Your task to perform on an android device: open app "Facebook Messenger" (install if not already installed) Image 0: 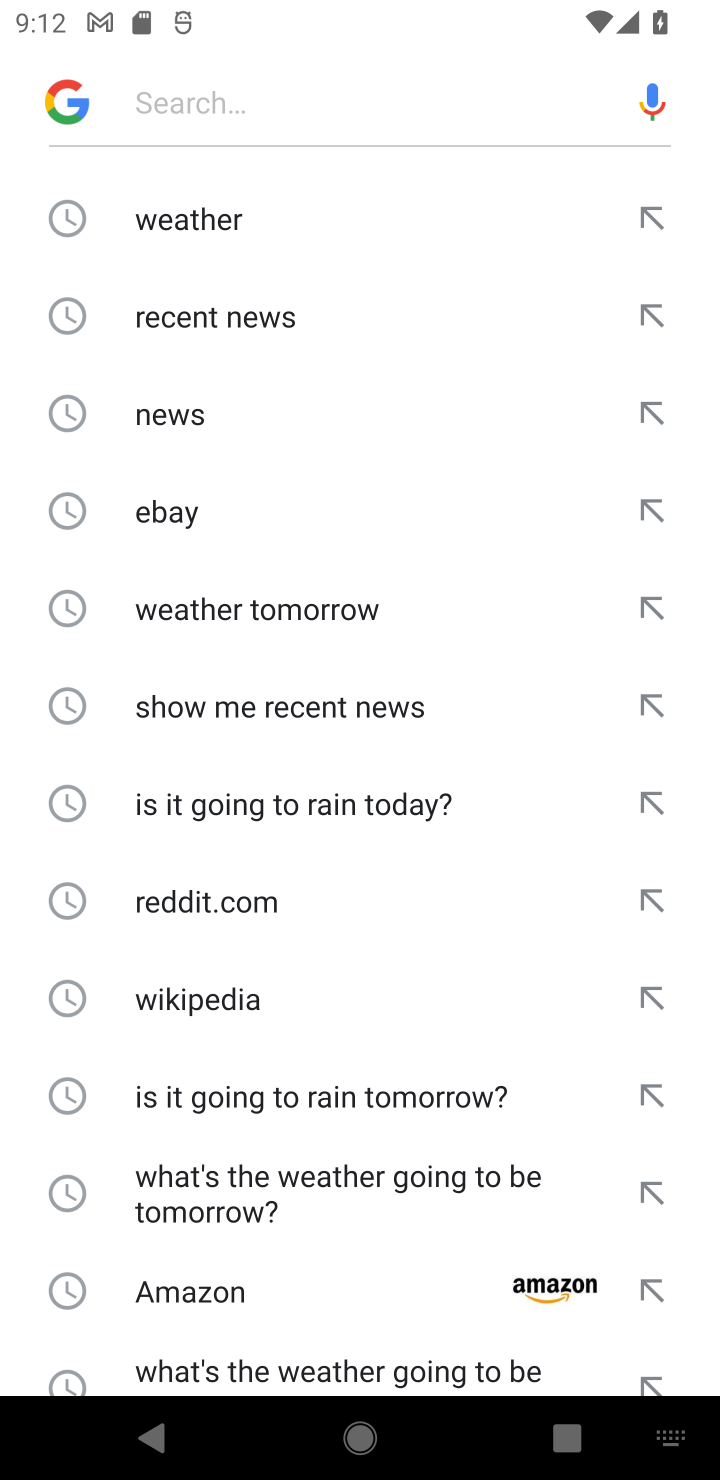
Step 0: press back button
Your task to perform on an android device: open app "Facebook Messenger" (install if not already installed) Image 1: 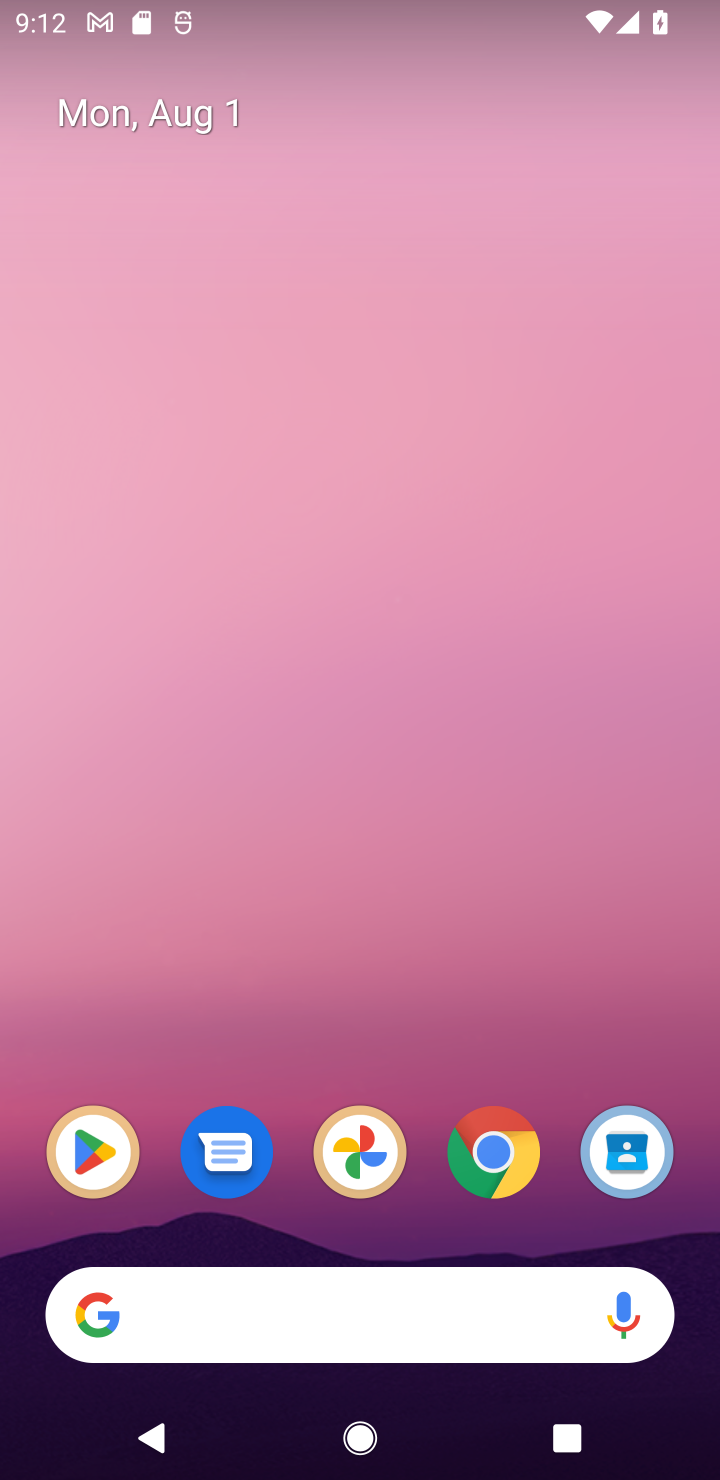
Step 1: drag from (300, 1219) to (359, 44)
Your task to perform on an android device: open app "Facebook Messenger" (install if not already installed) Image 2: 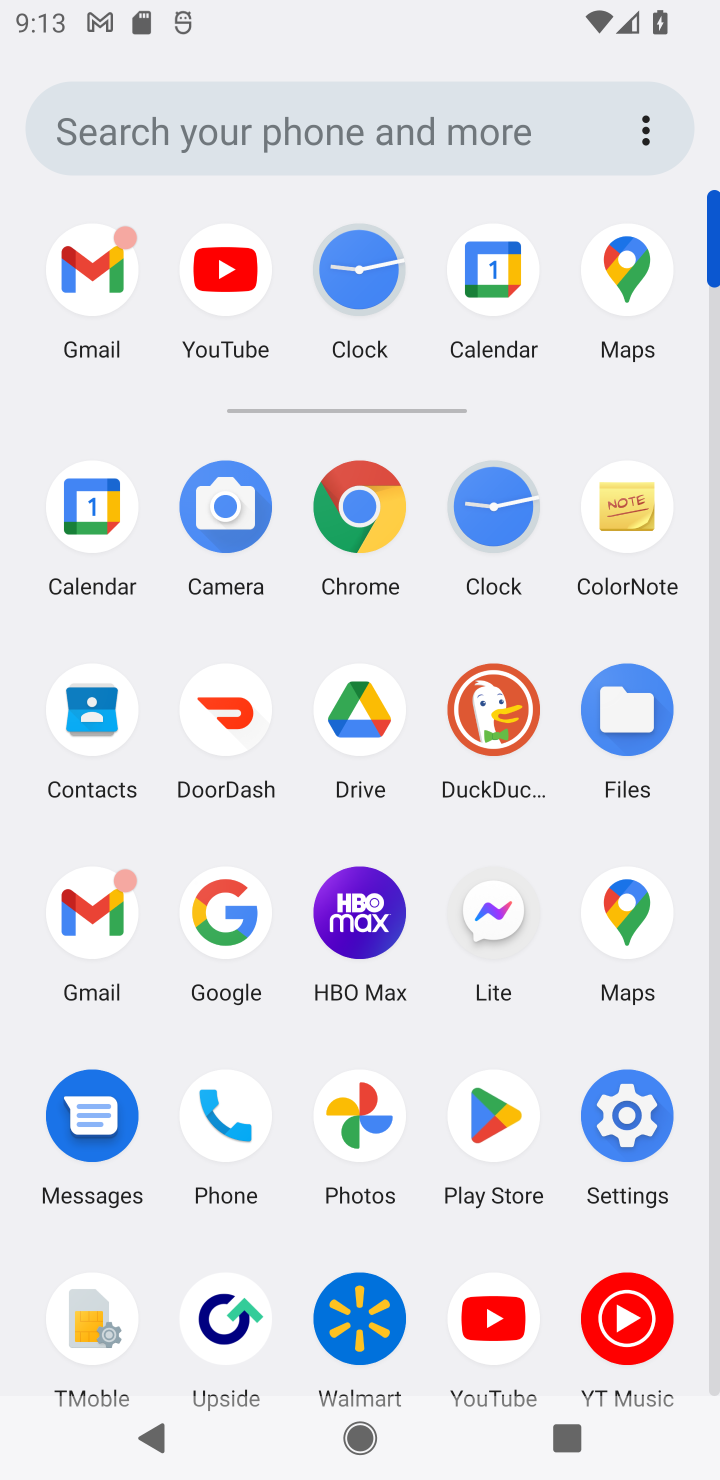
Step 2: click (492, 1116)
Your task to perform on an android device: open app "Facebook Messenger" (install if not already installed) Image 3: 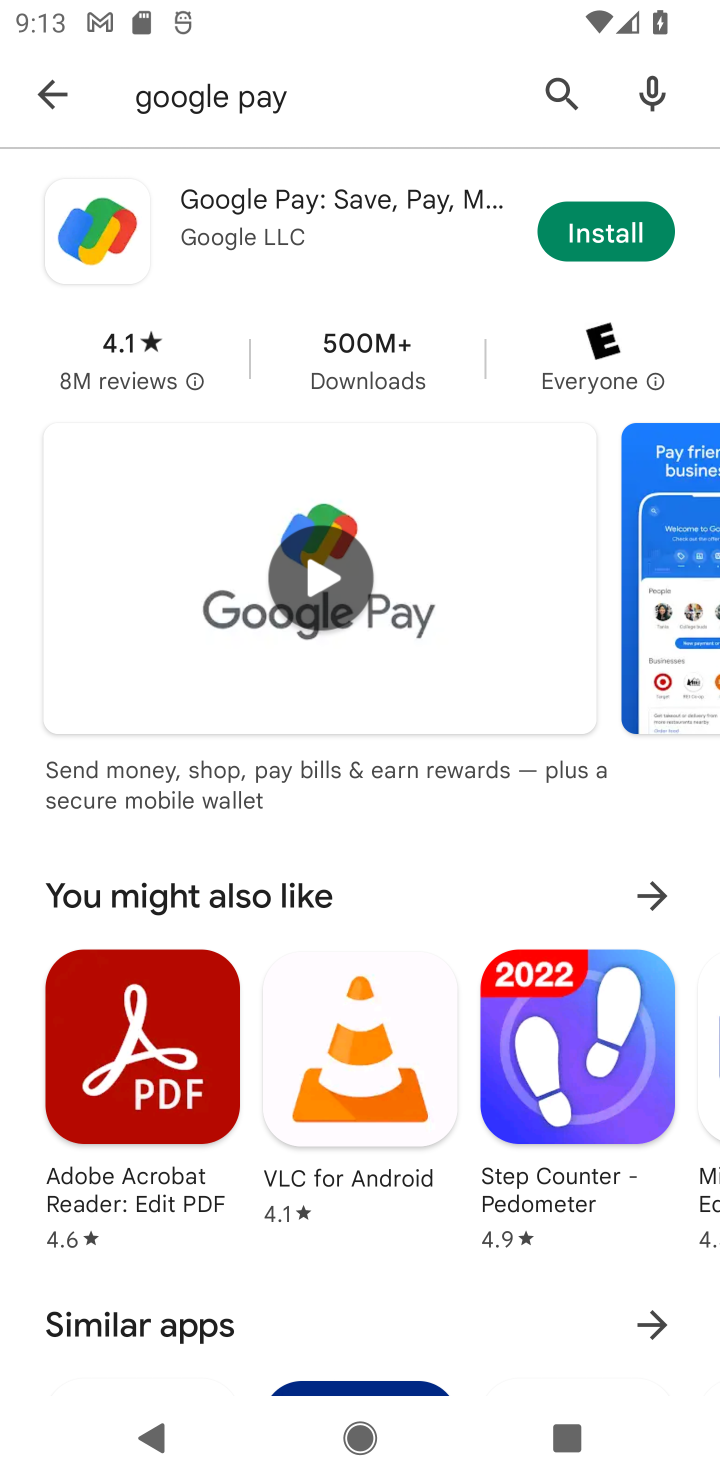
Step 3: click (54, 112)
Your task to perform on an android device: open app "Facebook Messenger" (install if not already installed) Image 4: 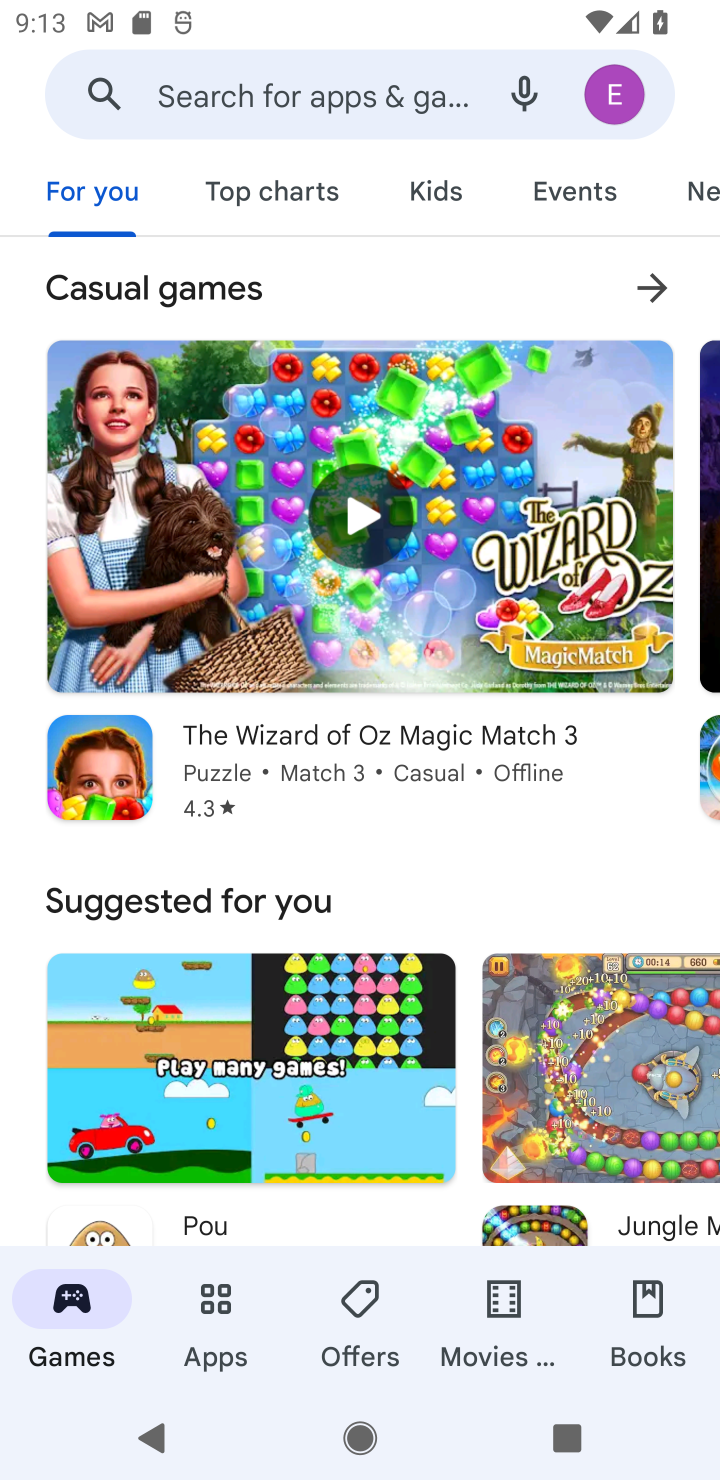
Step 4: click (348, 120)
Your task to perform on an android device: open app "Facebook Messenger" (install if not already installed) Image 5: 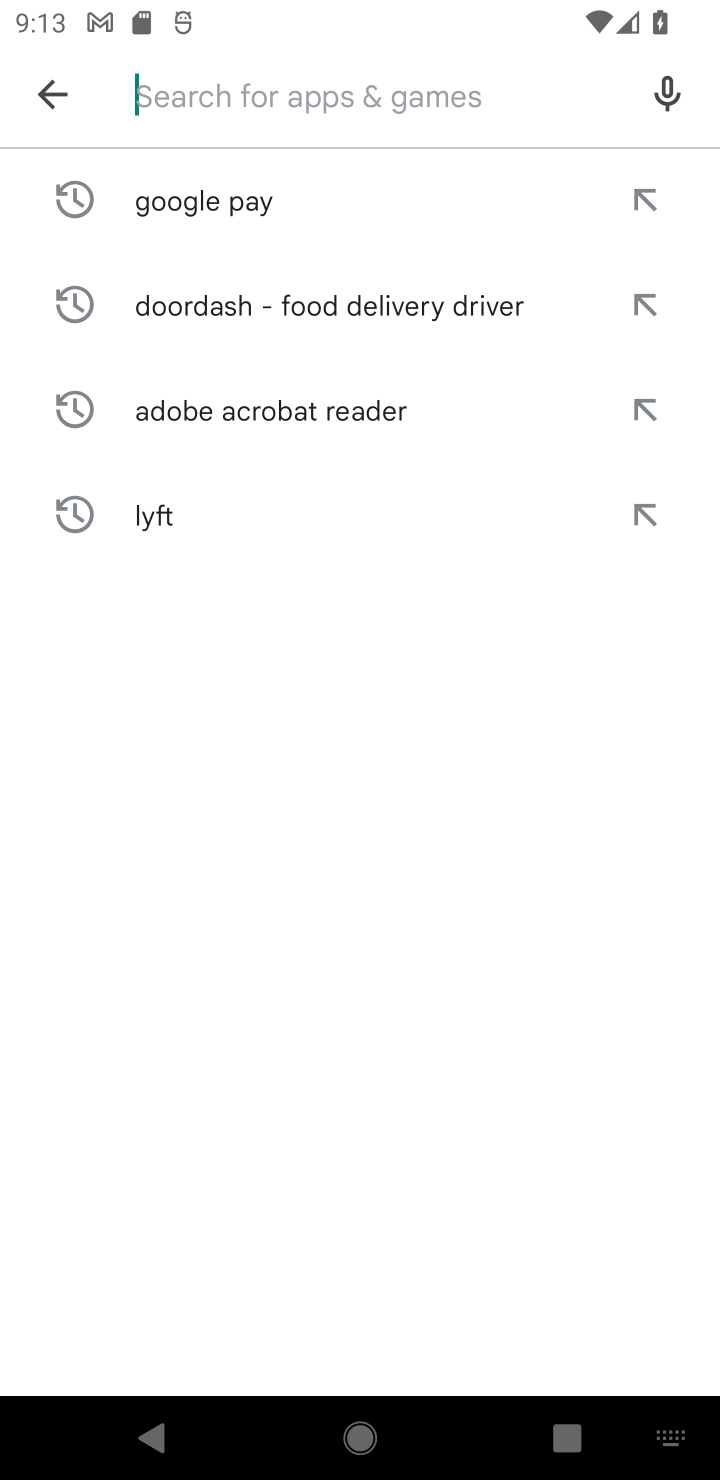
Step 5: type "Facebook Messenger"
Your task to perform on an android device: open app "Facebook Messenger" (install if not already installed) Image 6: 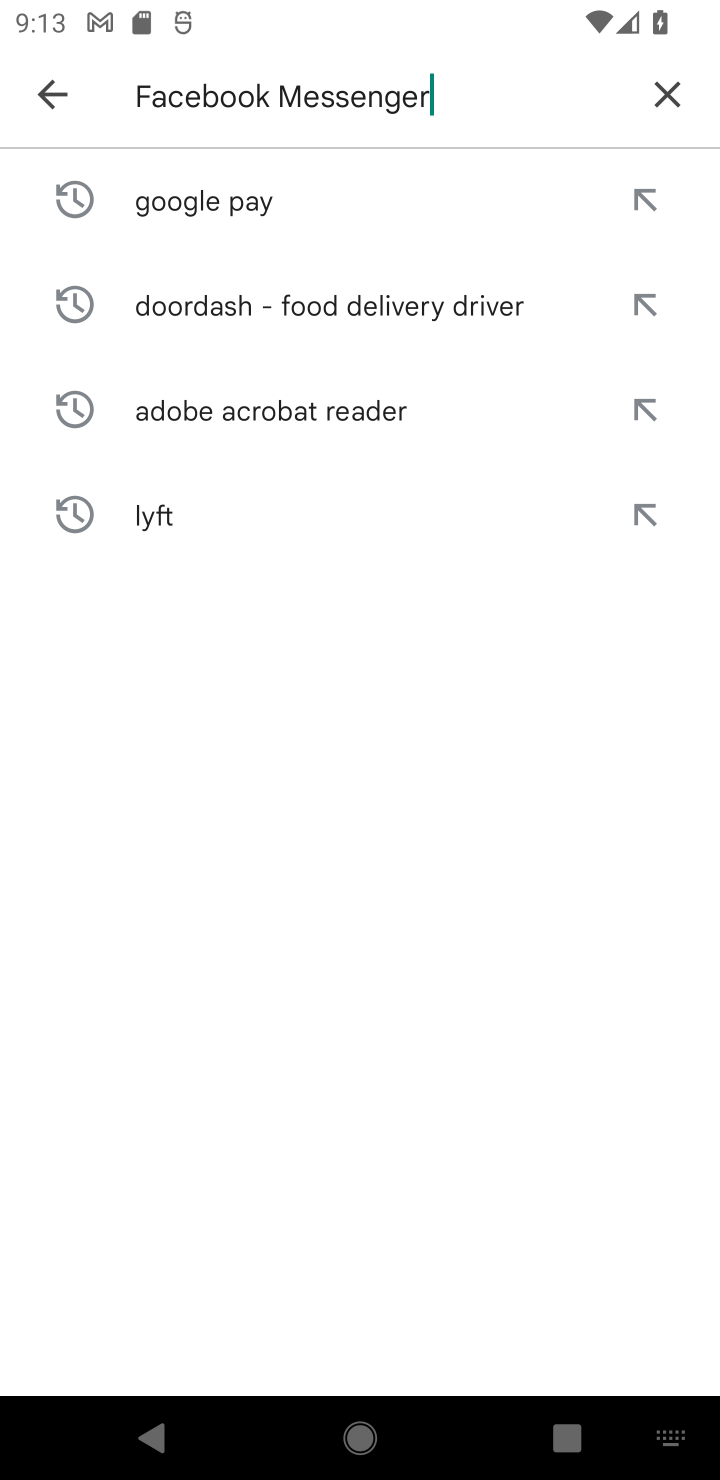
Step 6: type ""
Your task to perform on an android device: open app "Facebook Messenger" (install if not already installed) Image 7: 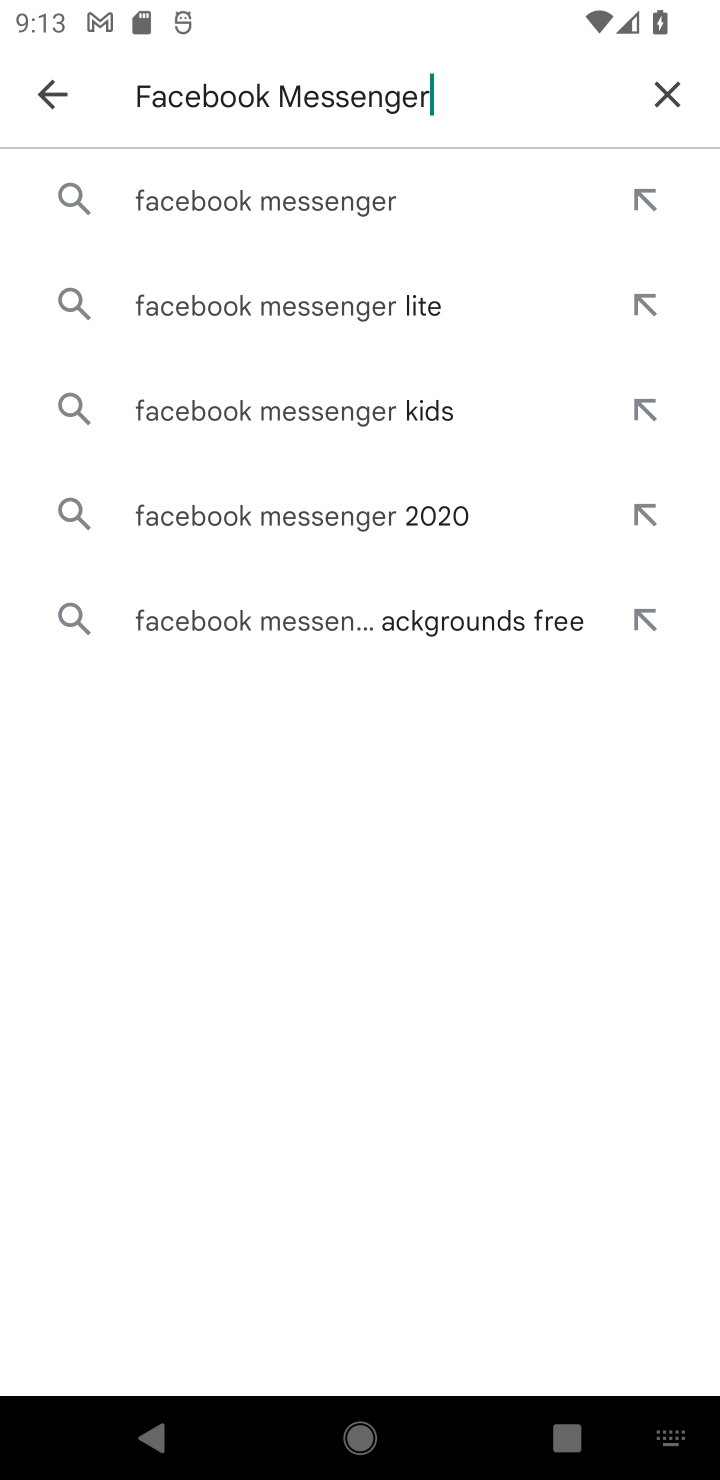
Step 7: click (263, 208)
Your task to perform on an android device: open app "Facebook Messenger" (install if not already installed) Image 8: 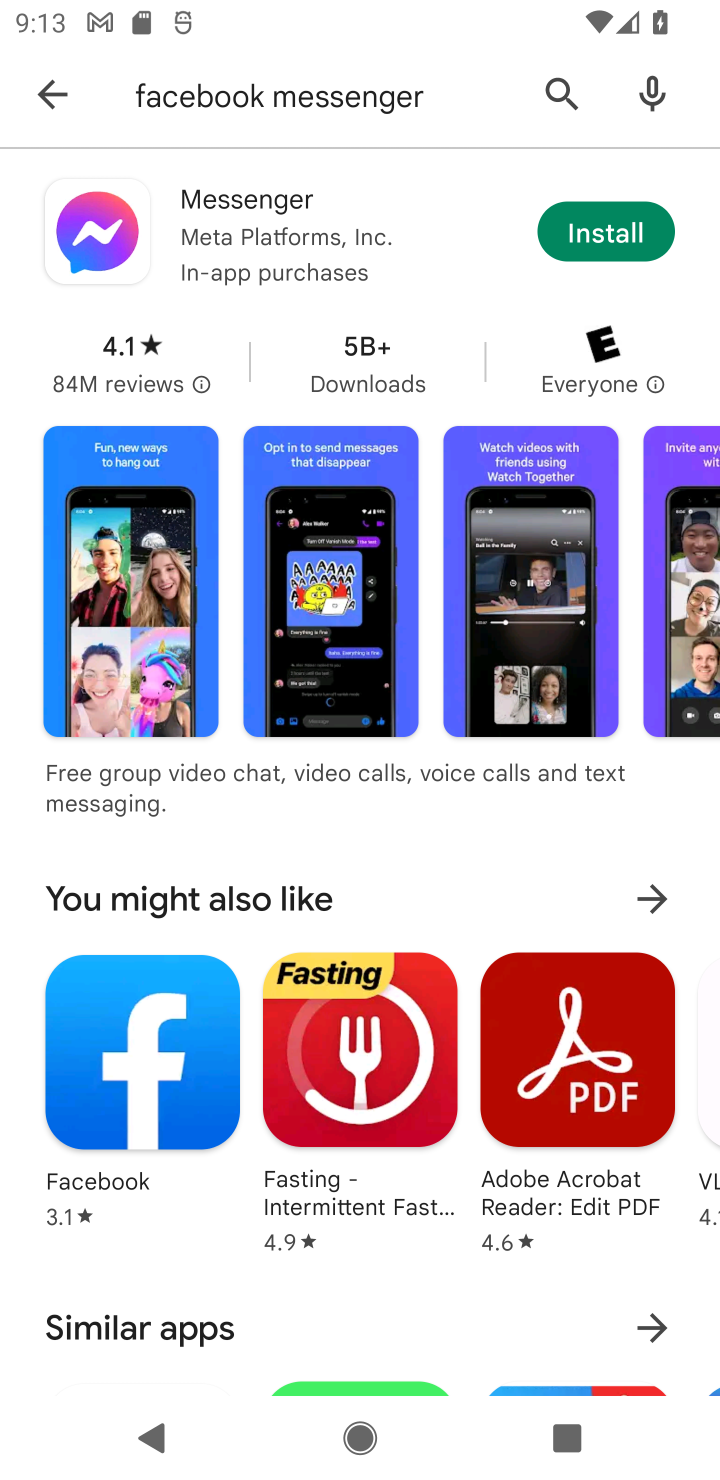
Step 8: click (634, 241)
Your task to perform on an android device: open app "Facebook Messenger" (install if not already installed) Image 9: 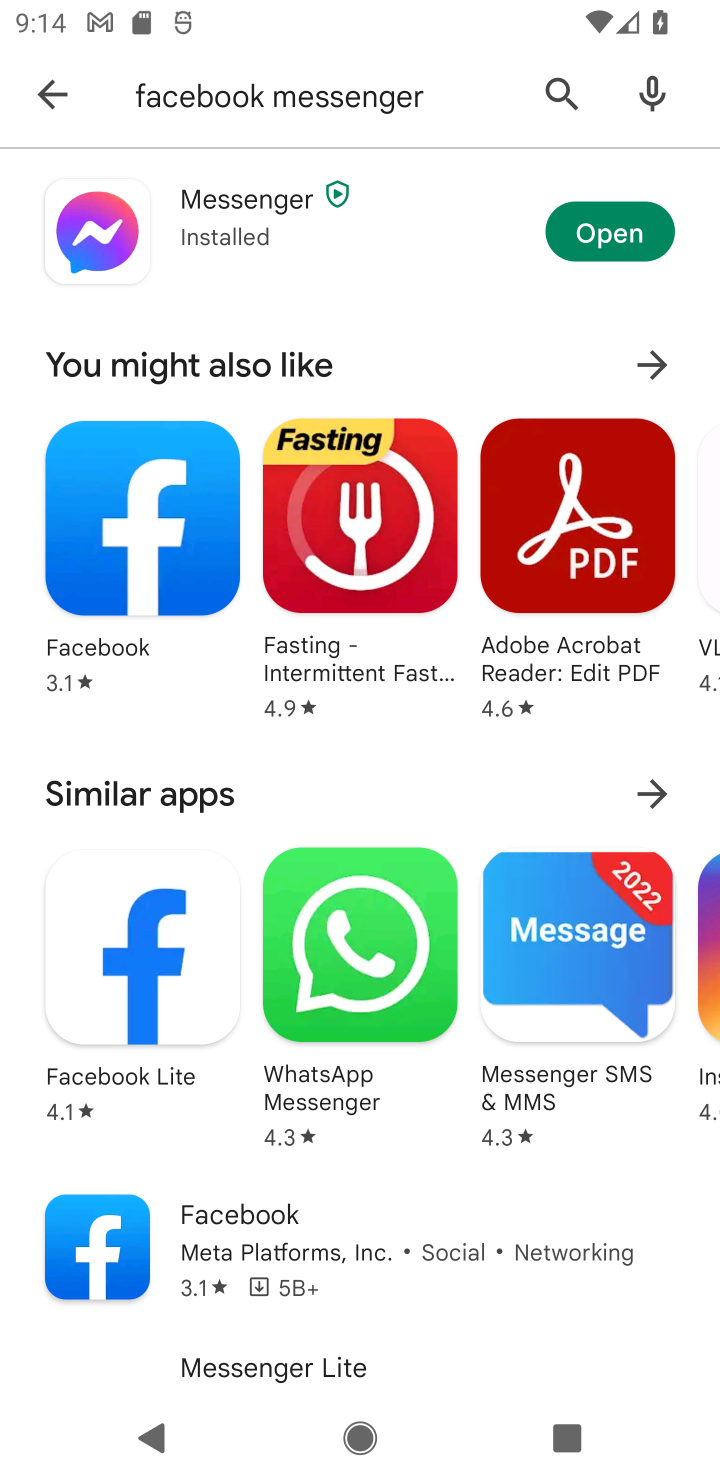
Step 9: click (622, 227)
Your task to perform on an android device: open app "Facebook Messenger" (install if not already installed) Image 10: 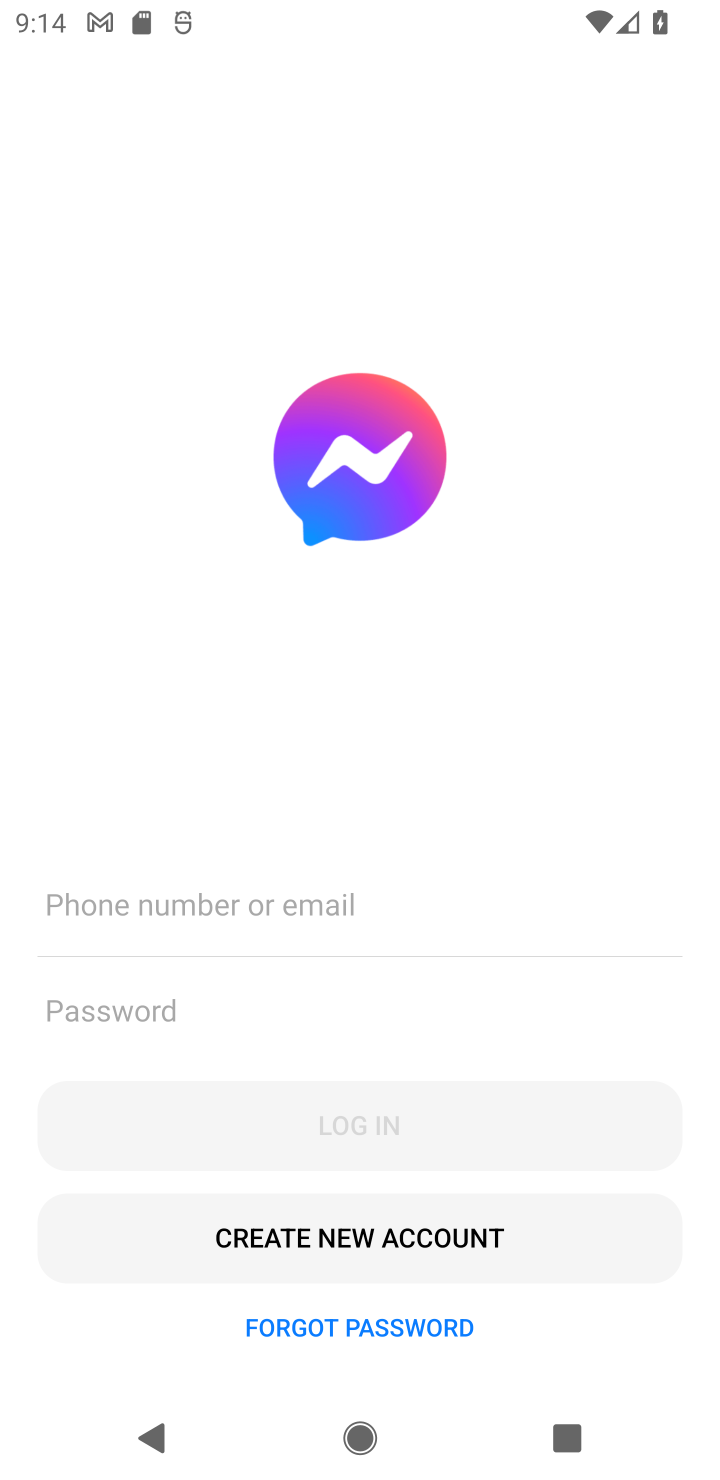
Step 10: task complete